Your task to perform on an android device: Open Yahoo.com Image 0: 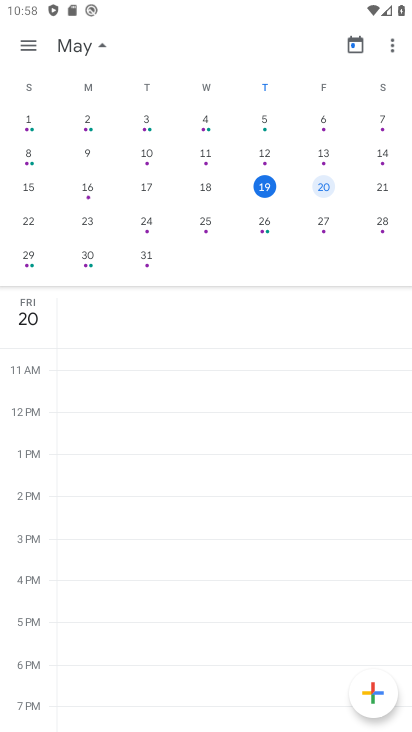
Step 0: press home button
Your task to perform on an android device: Open Yahoo.com Image 1: 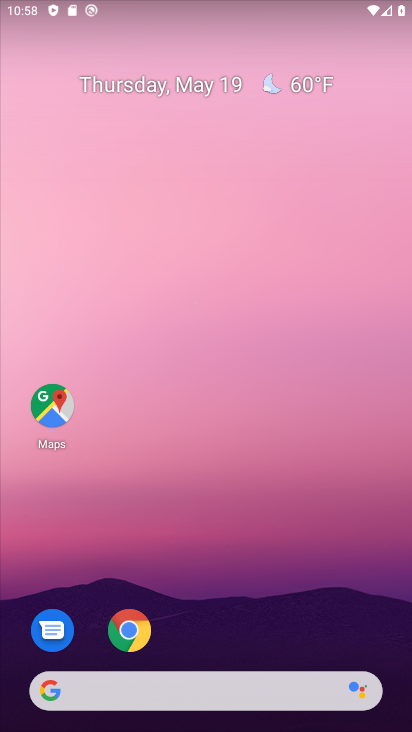
Step 1: click (129, 626)
Your task to perform on an android device: Open Yahoo.com Image 2: 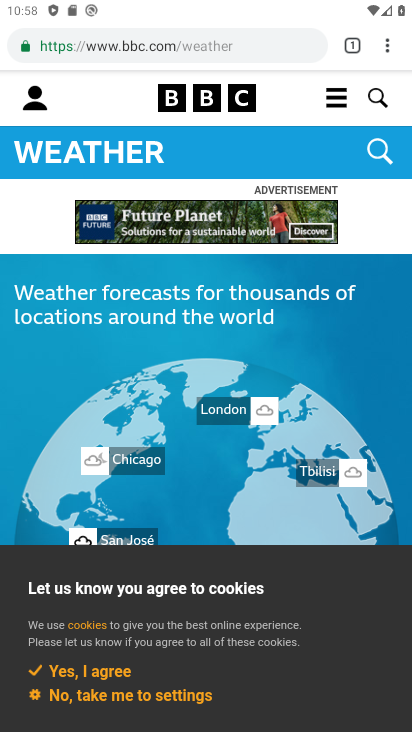
Step 2: click (125, 48)
Your task to perform on an android device: Open Yahoo.com Image 3: 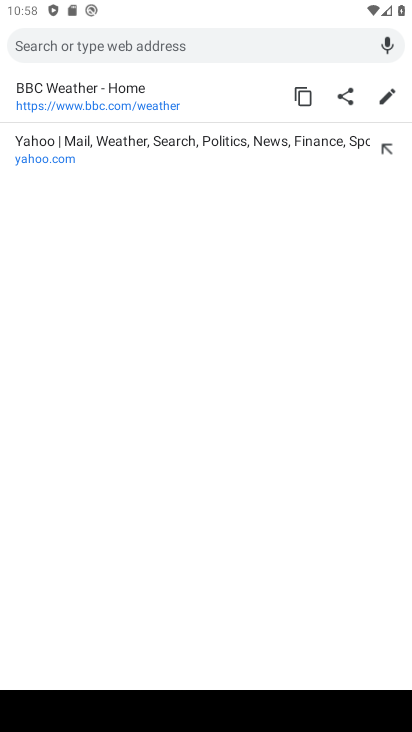
Step 3: click (157, 136)
Your task to perform on an android device: Open Yahoo.com Image 4: 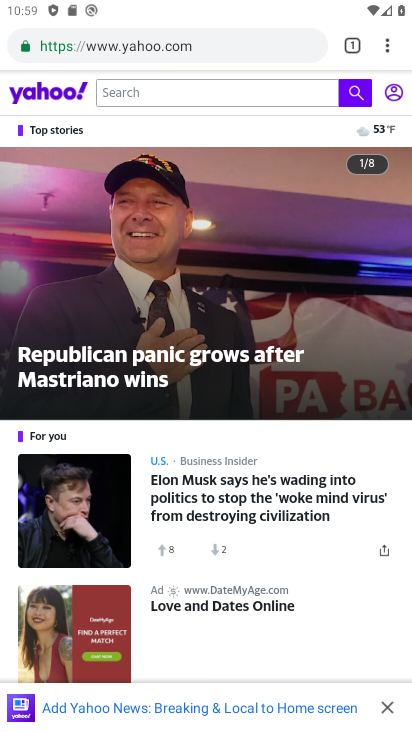
Step 4: task complete